Your task to perform on an android device: Open privacy settings Image 0: 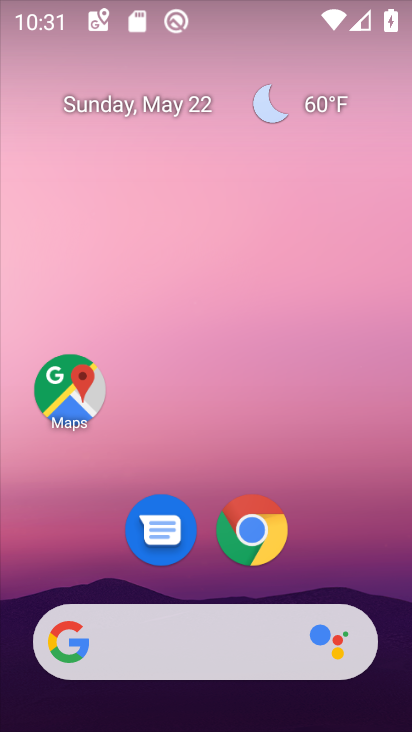
Step 0: click (257, 519)
Your task to perform on an android device: Open privacy settings Image 1: 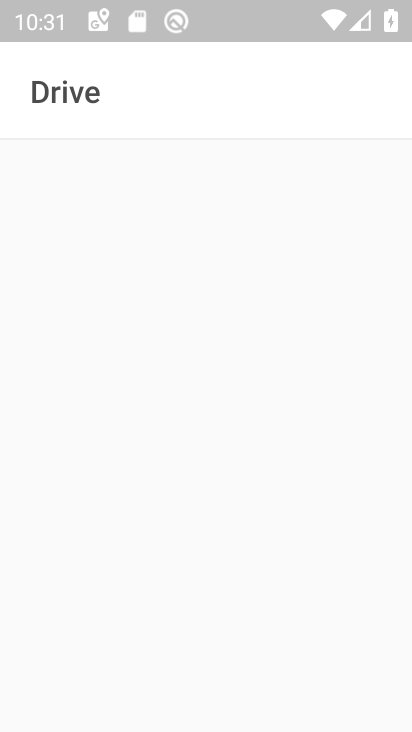
Step 1: press home button
Your task to perform on an android device: Open privacy settings Image 2: 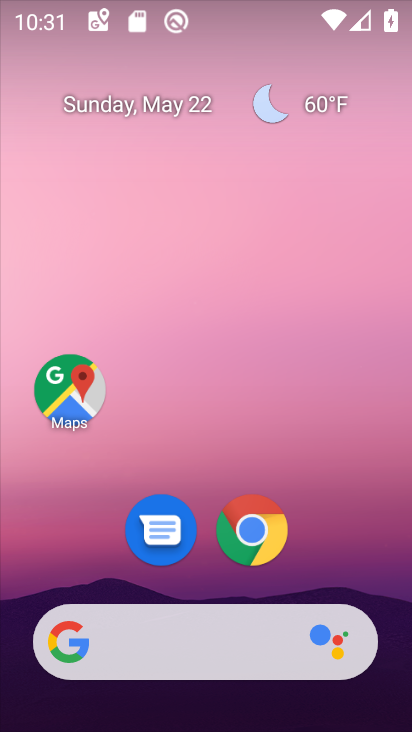
Step 2: click (256, 523)
Your task to perform on an android device: Open privacy settings Image 3: 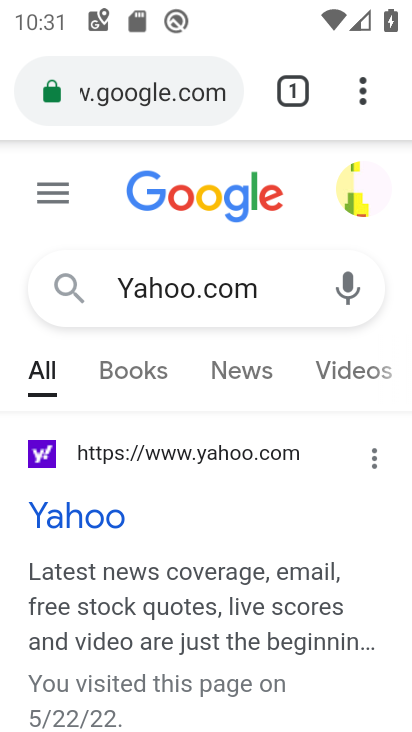
Step 3: click (359, 98)
Your task to perform on an android device: Open privacy settings Image 4: 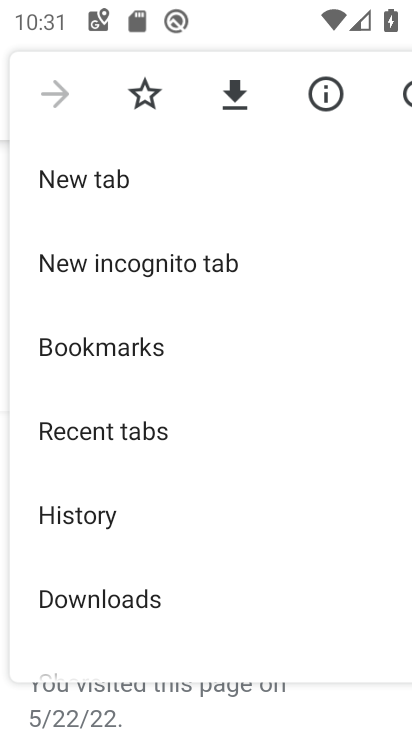
Step 4: drag from (254, 521) to (276, 340)
Your task to perform on an android device: Open privacy settings Image 5: 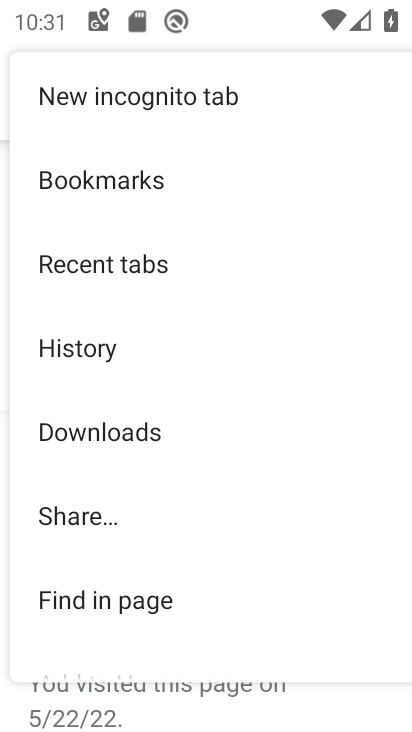
Step 5: drag from (196, 595) to (203, 532)
Your task to perform on an android device: Open privacy settings Image 6: 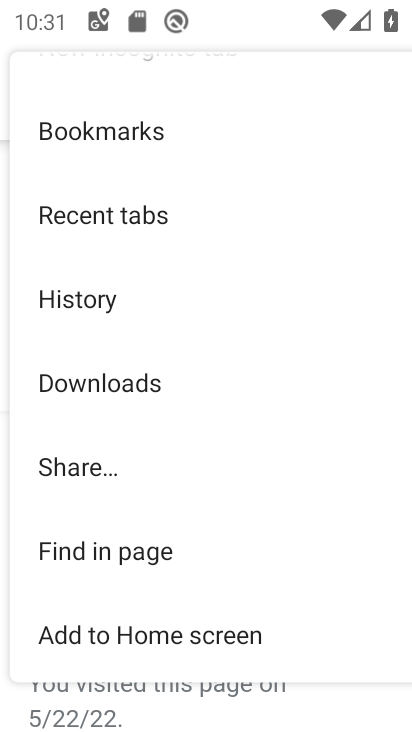
Step 6: drag from (285, 607) to (297, 277)
Your task to perform on an android device: Open privacy settings Image 7: 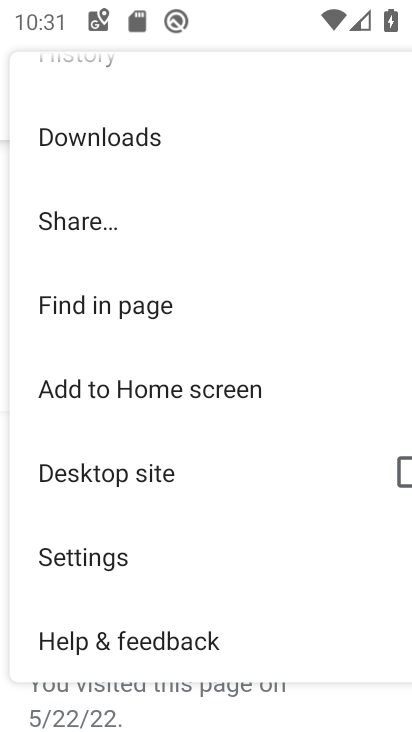
Step 7: click (59, 558)
Your task to perform on an android device: Open privacy settings Image 8: 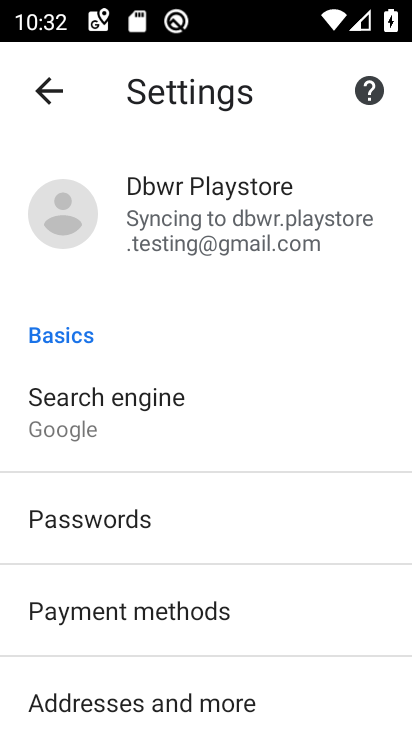
Step 8: drag from (309, 680) to (300, 347)
Your task to perform on an android device: Open privacy settings Image 9: 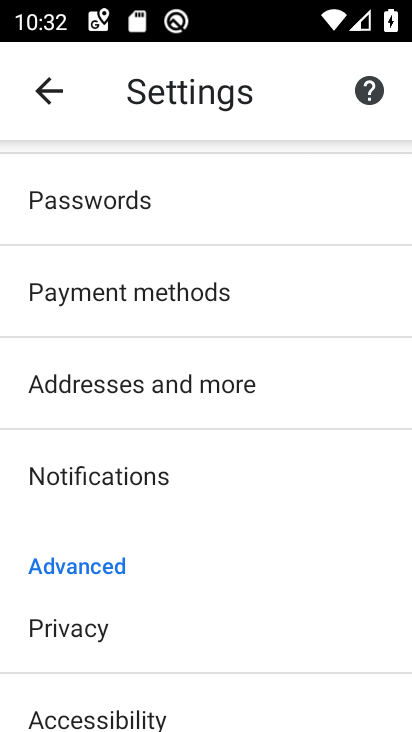
Step 9: drag from (290, 674) to (300, 425)
Your task to perform on an android device: Open privacy settings Image 10: 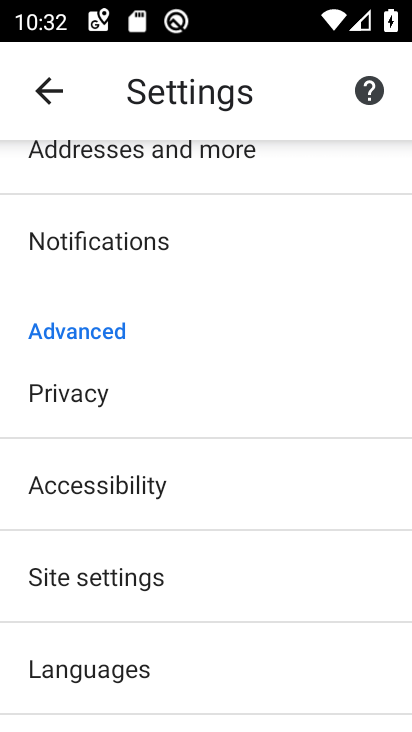
Step 10: click (76, 389)
Your task to perform on an android device: Open privacy settings Image 11: 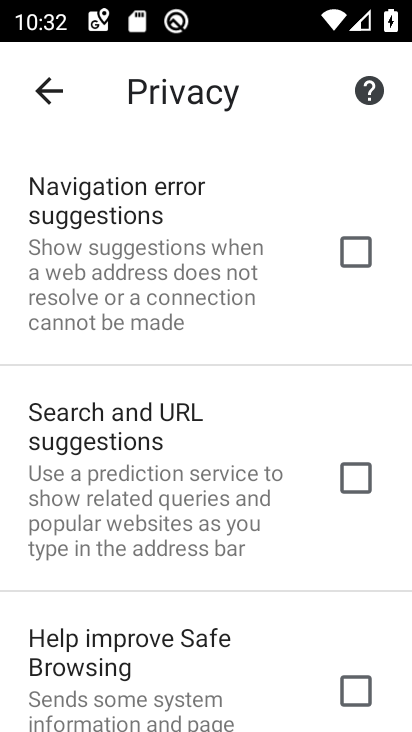
Step 11: task complete